Your task to perform on an android device: View the shopping cart on costco.com. Search for "beats solo 3" on costco.com, select the first entry, add it to the cart, then select checkout. Image 0: 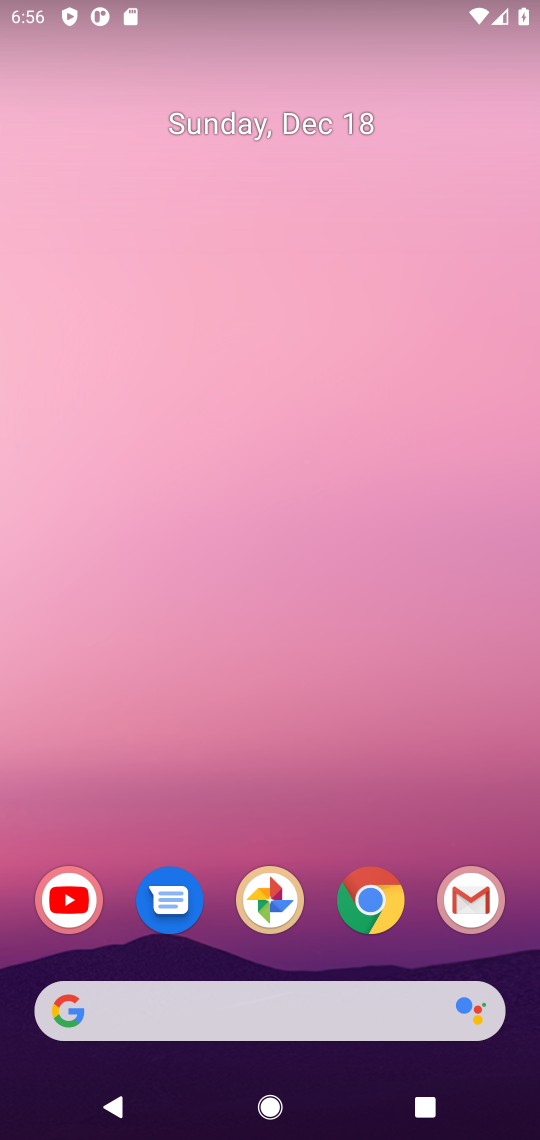
Step 0: click (387, 905)
Your task to perform on an android device: View the shopping cart on costco.com. Search for "beats solo 3" on costco.com, select the first entry, add it to the cart, then select checkout. Image 1: 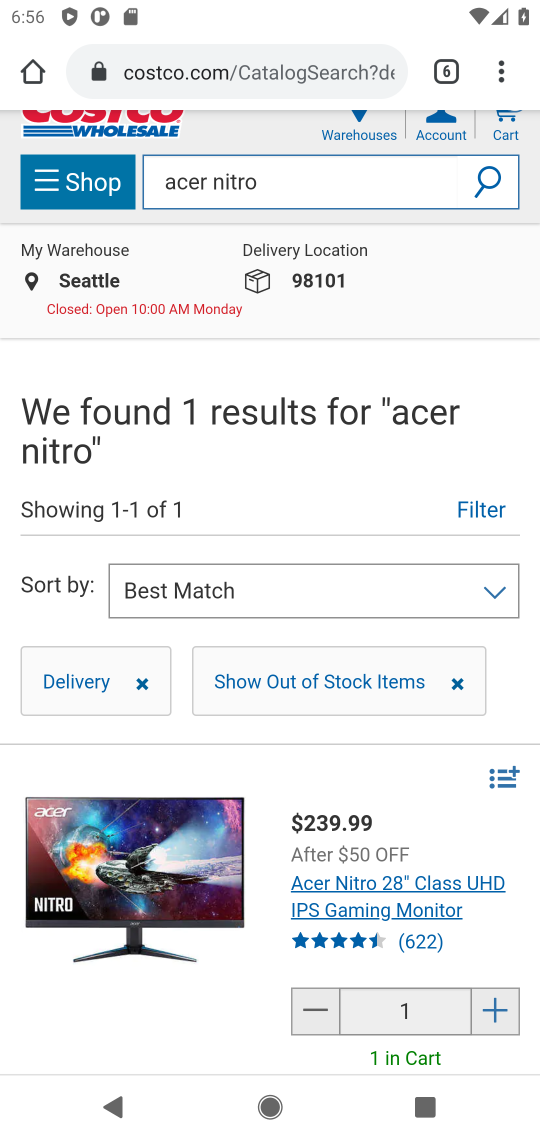
Step 1: click (501, 131)
Your task to perform on an android device: View the shopping cart on costco.com. Search for "beats solo 3" on costco.com, select the first entry, add it to the cart, then select checkout. Image 2: 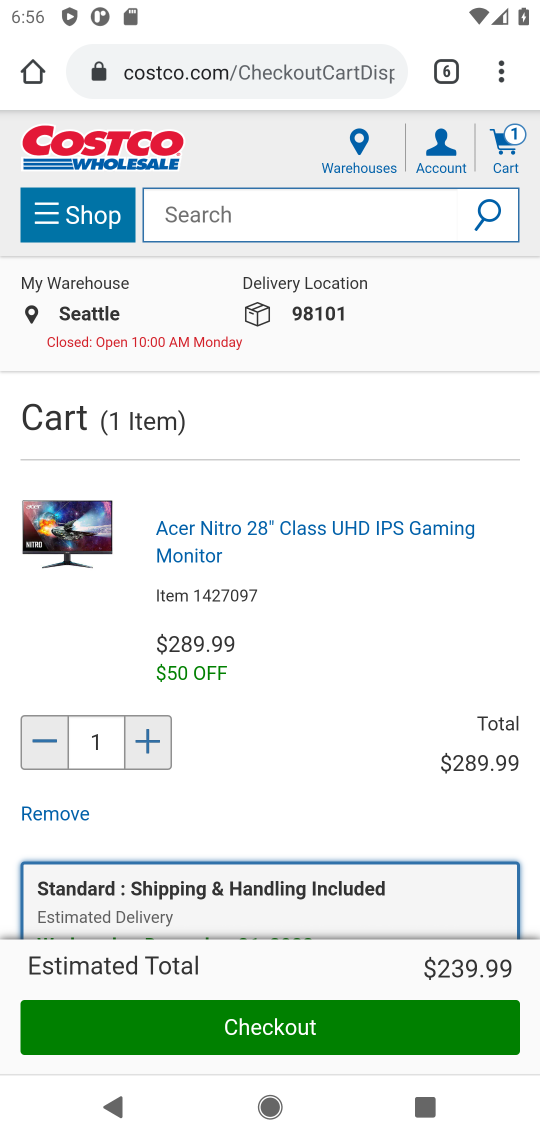
Step 2: click (260, 214)
Your task to perform on an android device: View the shopping cart on costco.com. Search for "beats solo 3" on costco.com, select the first entry, add it to the cart, then select checkout. Image 3: 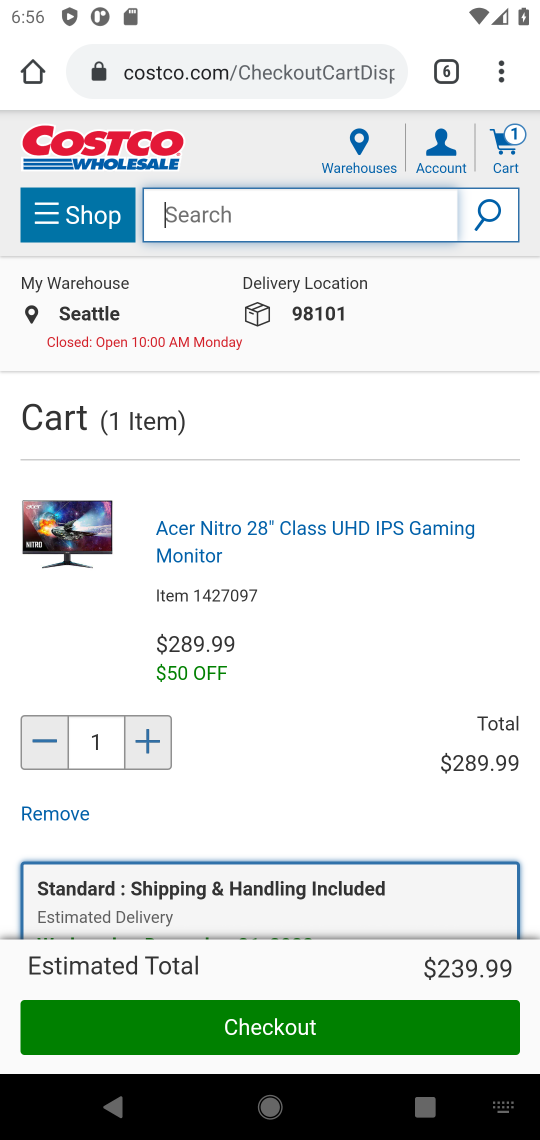
Step 3: type "beats solo 3""
Your task to perform on an android device: View the shopping cart on costco.com. Search for "beats solo 3" on costco.com, select the first entry, add it to the cart, then select checkout. Image 4: 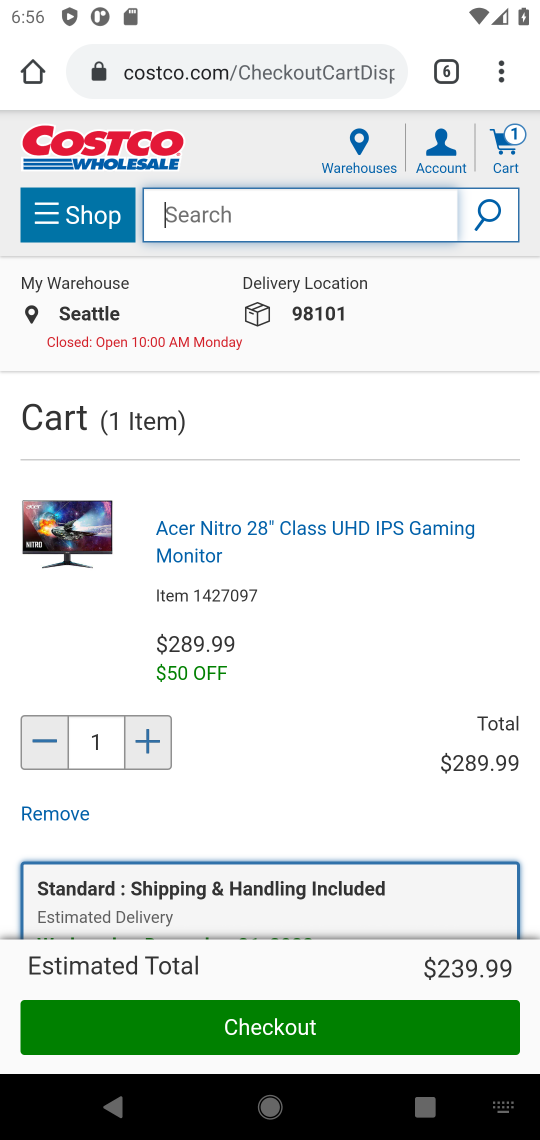
Step 4: type "beats solo 3"
Your task to perform on an android device: View the shopping cart on costco.com. Search for "beats solo 3" on costco.com, select the first entry, add it to the cart, then select checkout. Image 5: 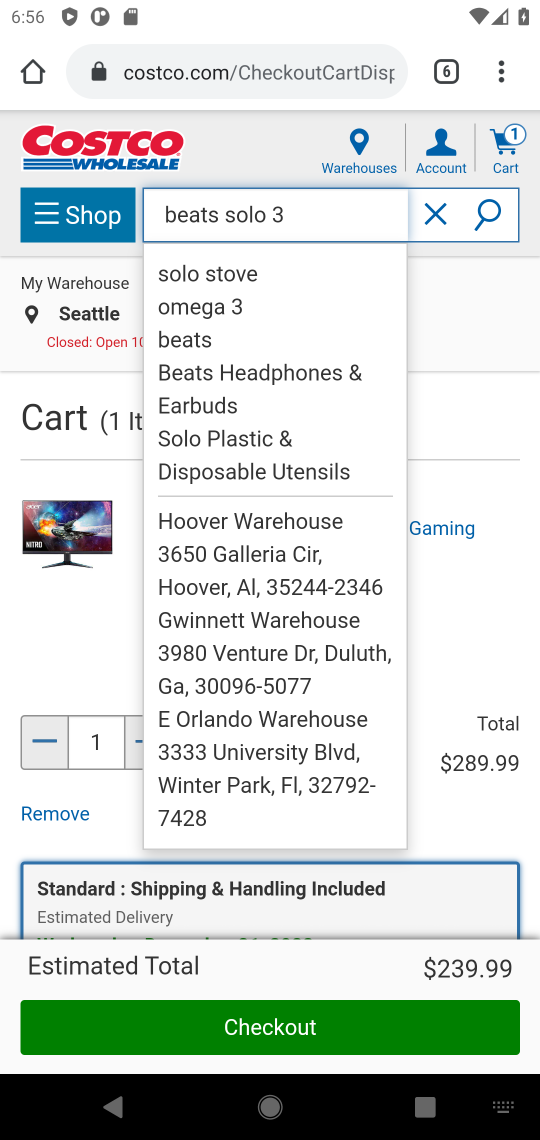
Step 5: click (503, 195)
Your task to perform on an android device: View the shopping cart on costco.com. Search for "beats solo 3" on costco.com, select the first entry, add it to the cart, then select checkout. Image 6: 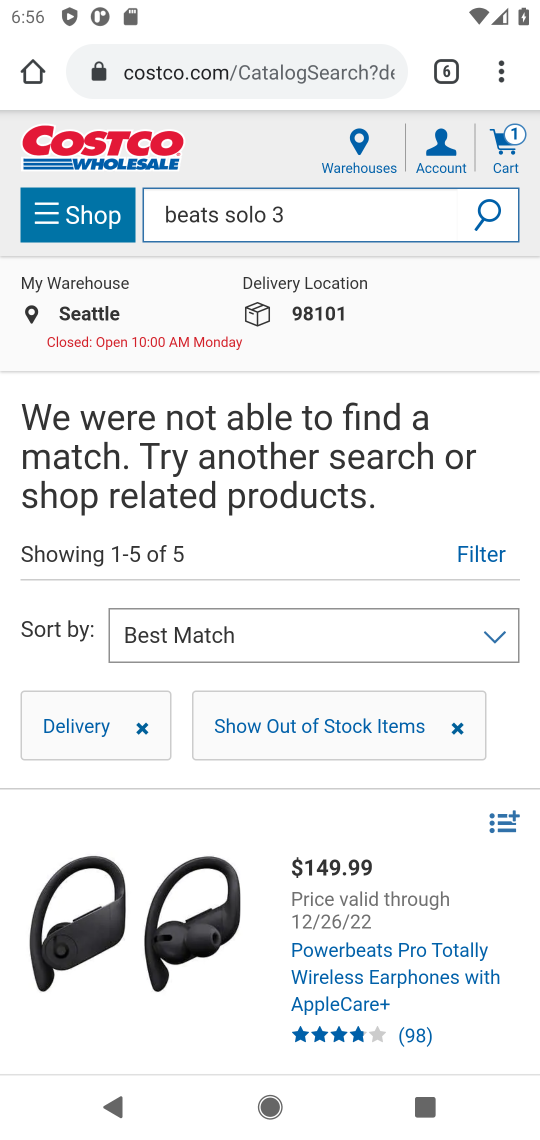
Step 6: task complete